Your task to perform on an android device: Is it going to rain tomorrow? Image 0: 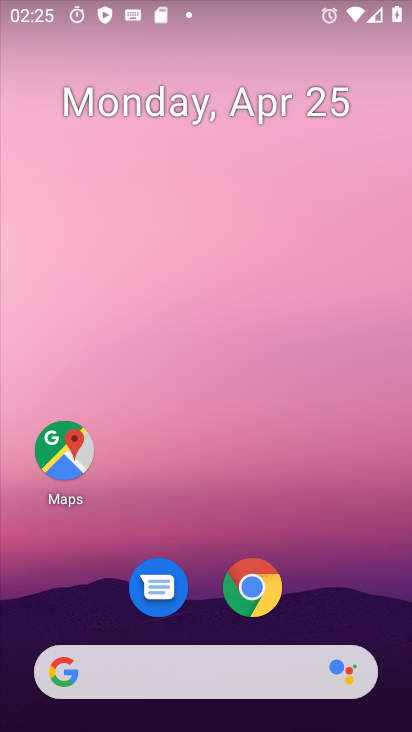
Step 0: drag from (357, 619) to (335, 87)
Your task to perform on an android device: Is it going to rain tomorrow? Image 1: 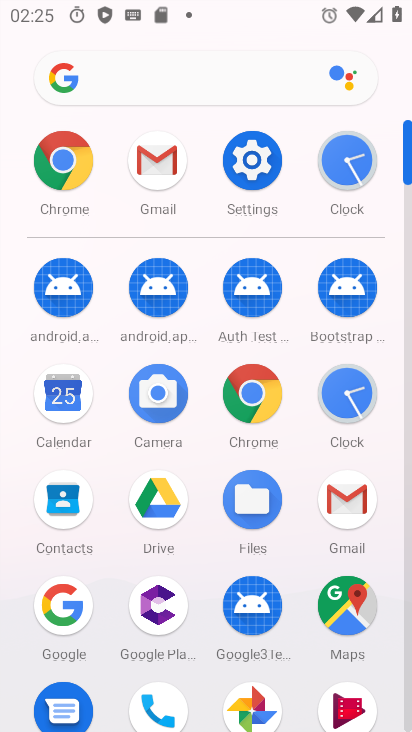
Step 1: drag from (333, 594) to (324, 106)
Your task to perform on an android device: Is it going to rain tomorrow? Image 2: 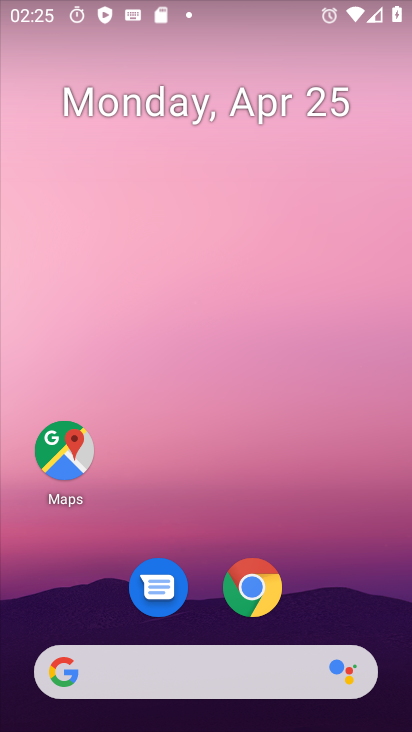
Step 2: drag from (342, 611) to (309, 157)
Your task to perform on an android device: Is it going to rain tomorrow? Image 3: 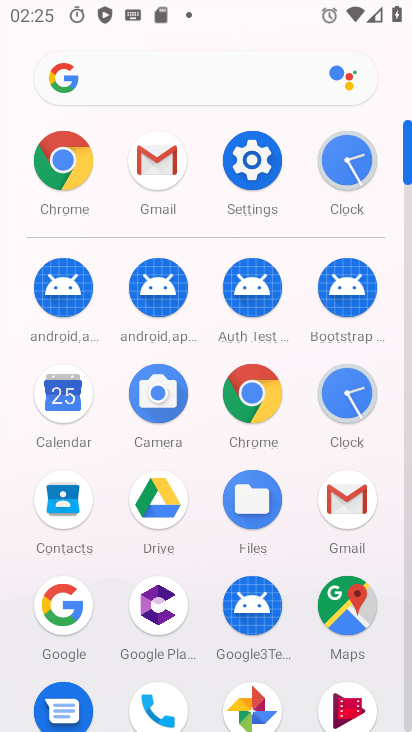
Step 3: click (242, 391)
Your task to perform on an android device: Is it going to rain tomorrow? Image 4: 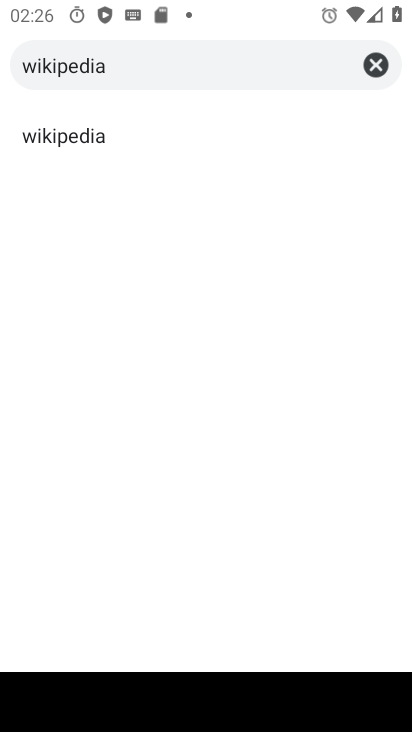
Step 4: click (209, 58)
Your task to perform on an android device: Is it going to rain tomorrow? Image 5: 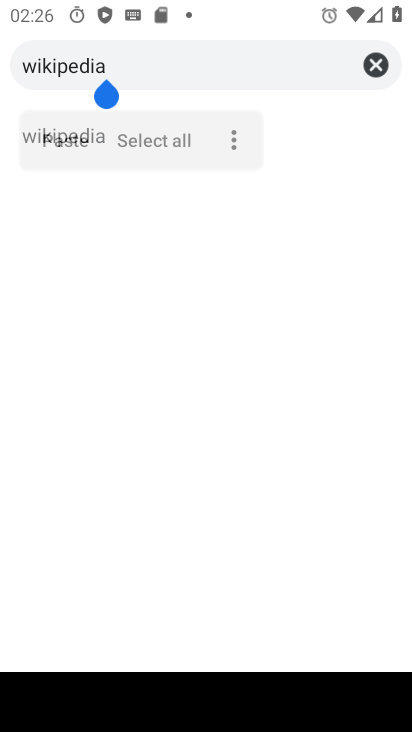
Step 5: drag from (187, 64) to (2, 53)
Your task to perform on an android device: Is it going to rain tomorrow? Image 6: 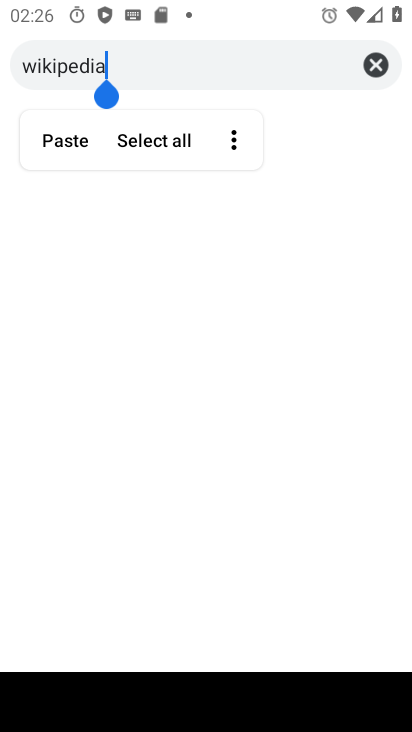
Step 6: click (45, 54)
Your task to perform on an android device: Is it going to rain tomorrow? Image 7: 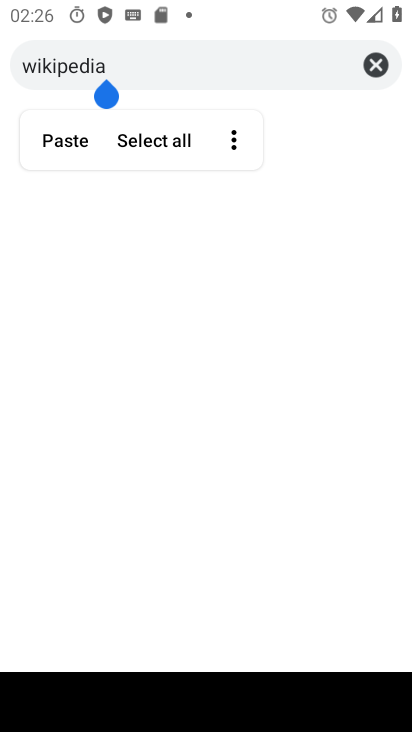
Step 7: click (49, 64)
Your task to perform on an android device: Is it going to rain tomorrow? Image 8: 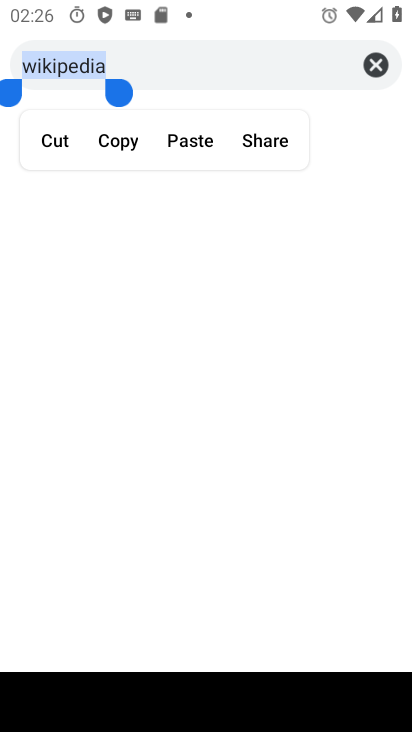
Step 8: type "weather"
Your task to perform on an android device: Is it going to rain tomorrow? Image 9: 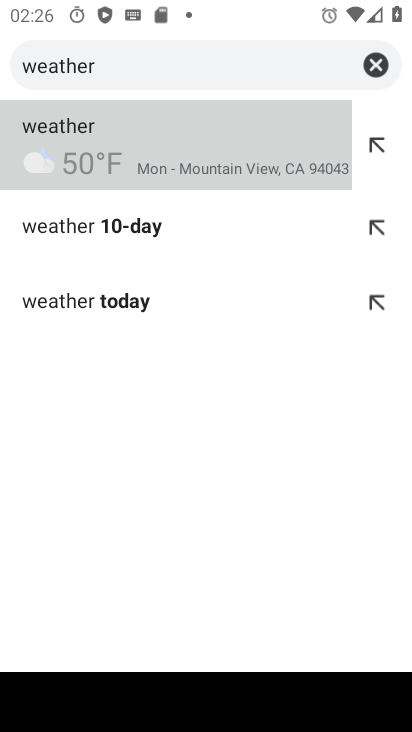
Step 9: click (131, 129)
Your task to perform on an android device: Is it going to rain tomorrow? Image 10: 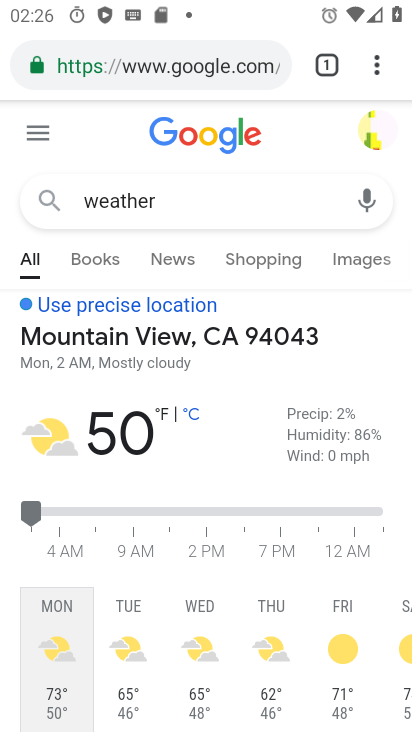
Step 10: task complete